Your task to perform on an android device: make emails show in primary in the gmail app Image 0: 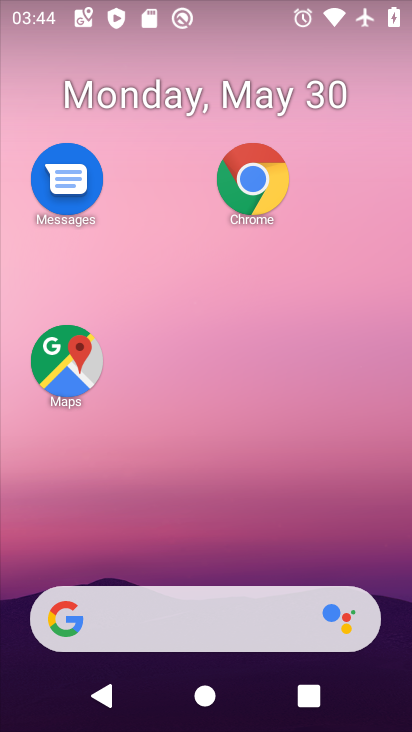
Step 0: drag from (222, 543) to (205, 159)
Your task to perform on an android device: make emails show in primary in the gmail app Image 1: 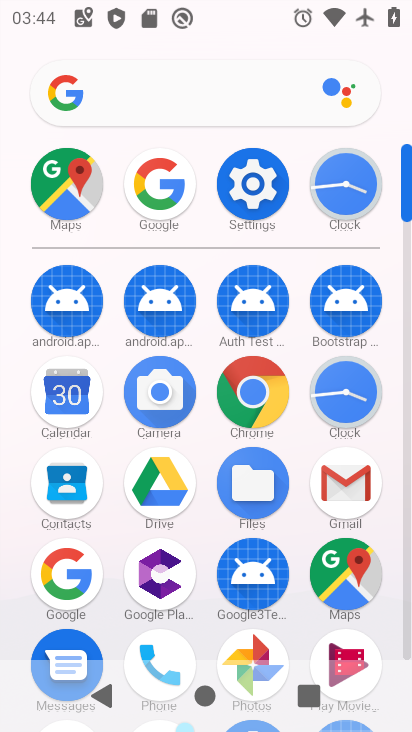
Step 1: click (357, 482)
Your task to perform on an android device: make emails show in primary in the gmail app Image 2: 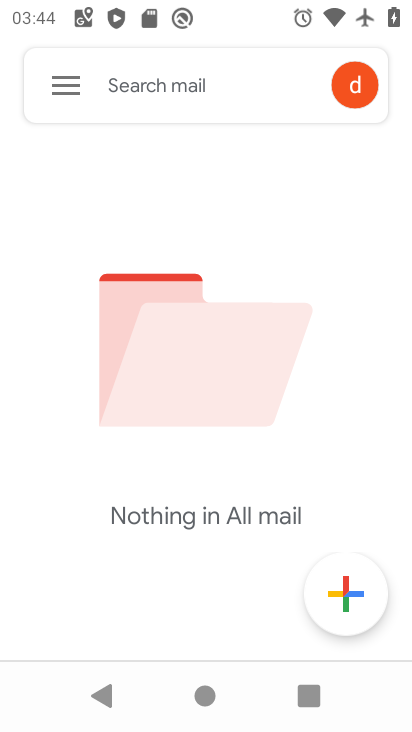
Step 2: click (68, 79)
Your task to perform on an android device: make emails show in primary in the gmail app Image 3: 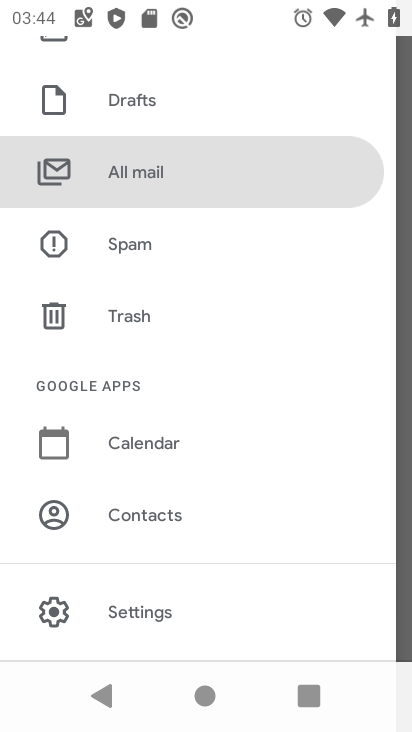
Step 3: drag from (212, 283) to (237, 512)
Your task to perform on an android device: make emails show in primary in the gmail app Image 4: 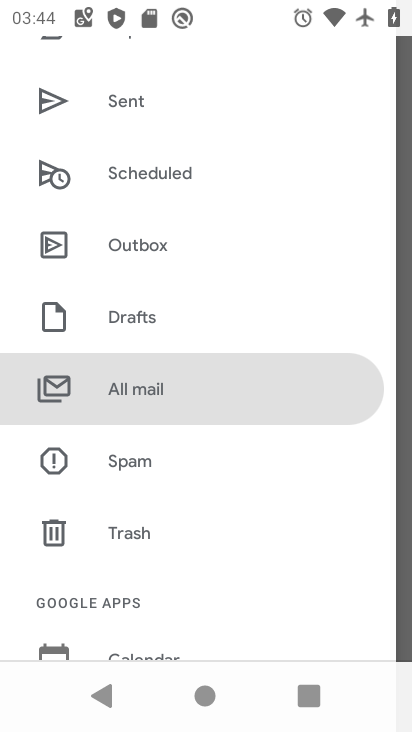
Step 4: drag from (212, 548) to (230, 213)
Your task to perform on an android device: make emails show in primary in the gmail app Image 5: 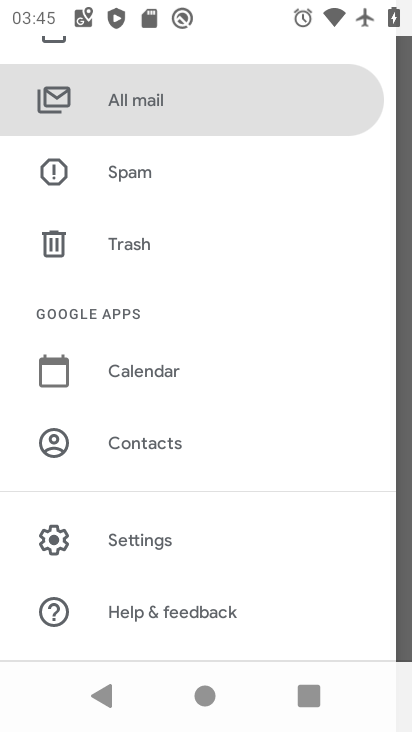
Step 5: click (150, 538)
Your task to perform on an android device: make emails show in primary in the gmail app Image 6: 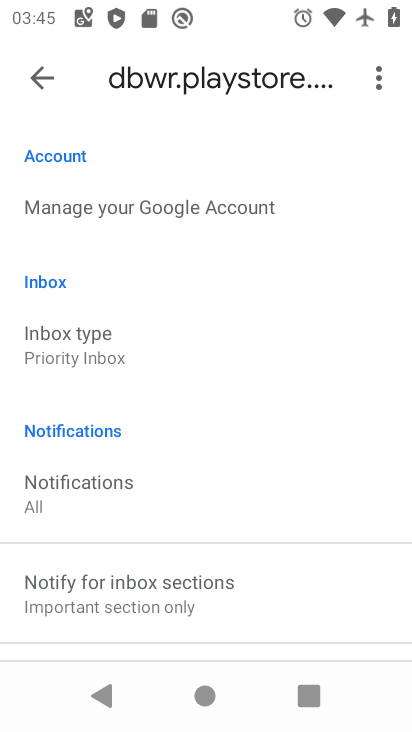
Step 6: task complete